Your task to perform on an android device: uninstall "Booking.com: Hotels and more" Image 0: 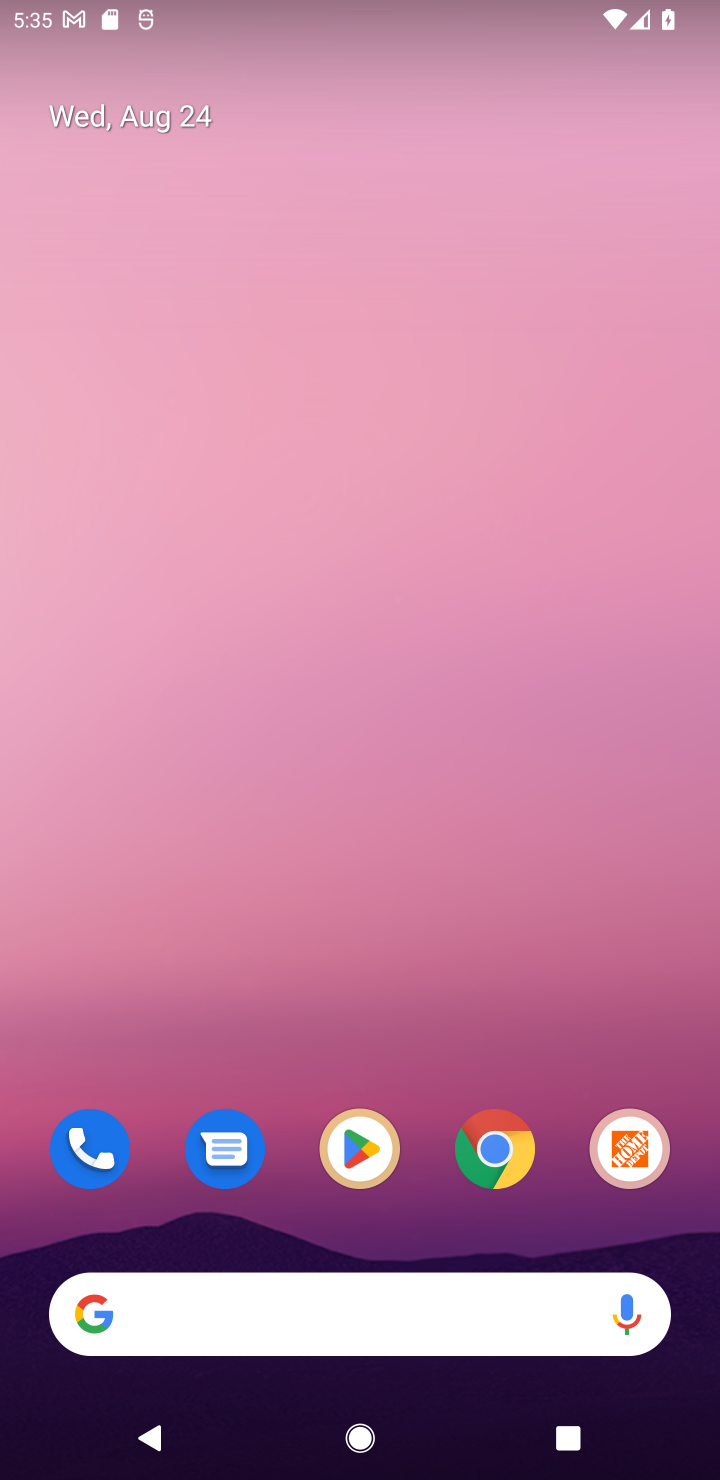
Step 0: click (370, 1145)
Your task to perform on an android device: uninstall "Booking.com: Hotels and more" Image 1: 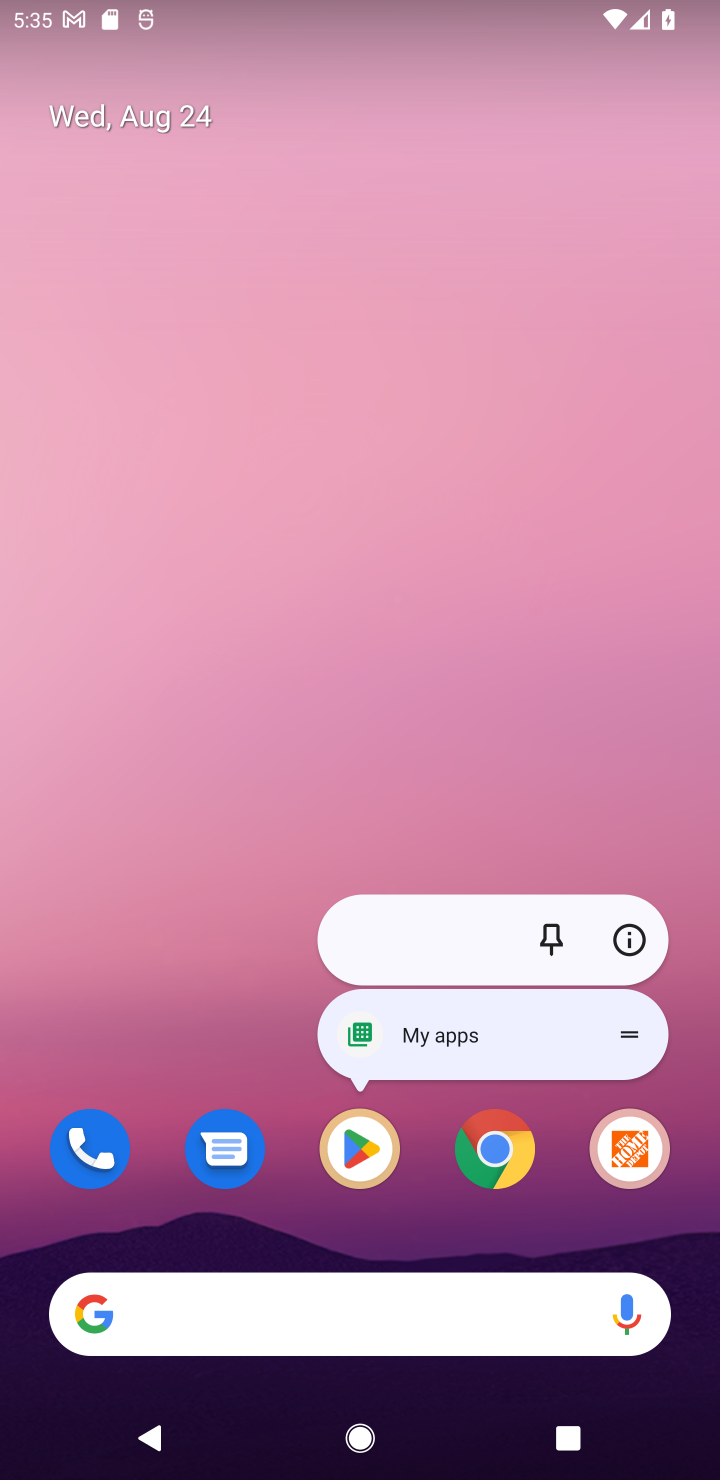
Step 1: click (353, 1147)
Your task to perform on an android device: uninstall "Booking.com: Hotels and more" Image 2: 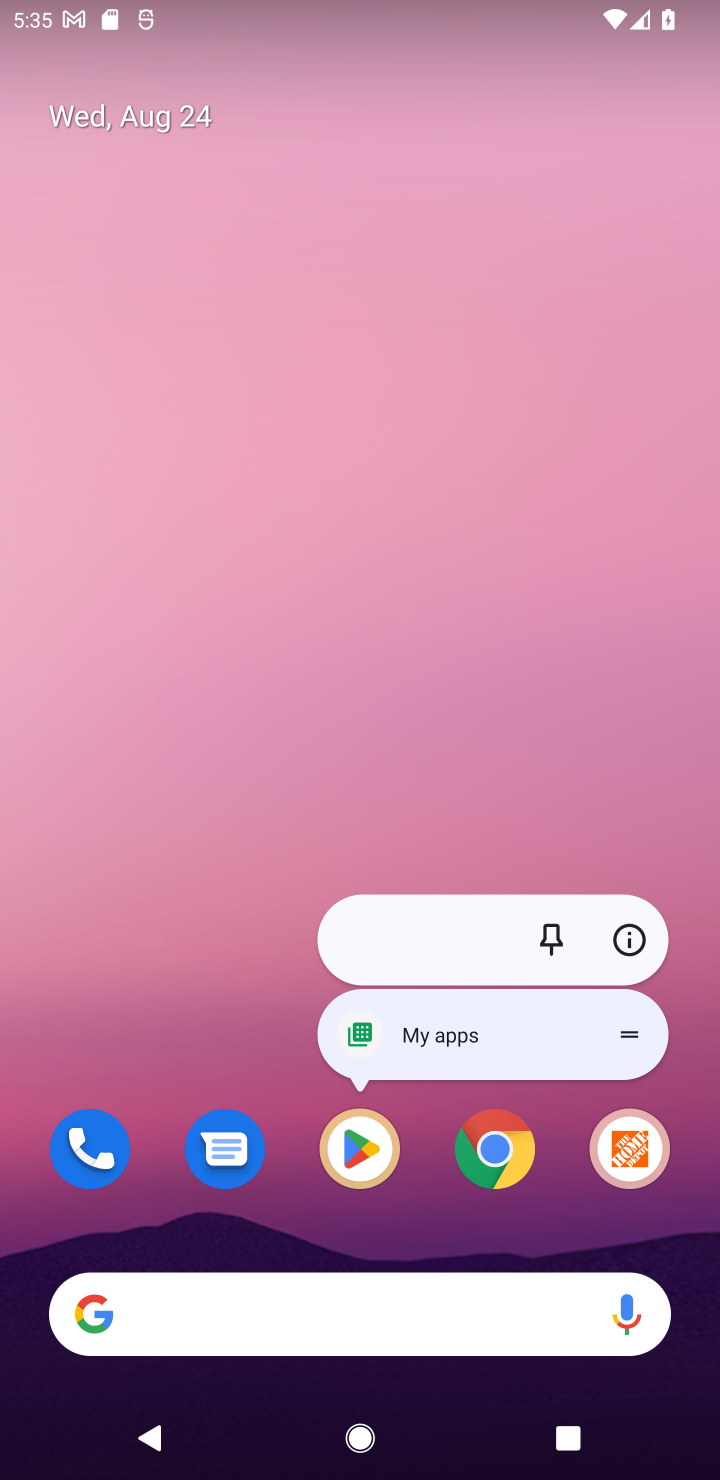
Step 2: click (353, 1149)
Your task to perform on an android device: uninstall "Booking.com: Hotels and more" Image 3: 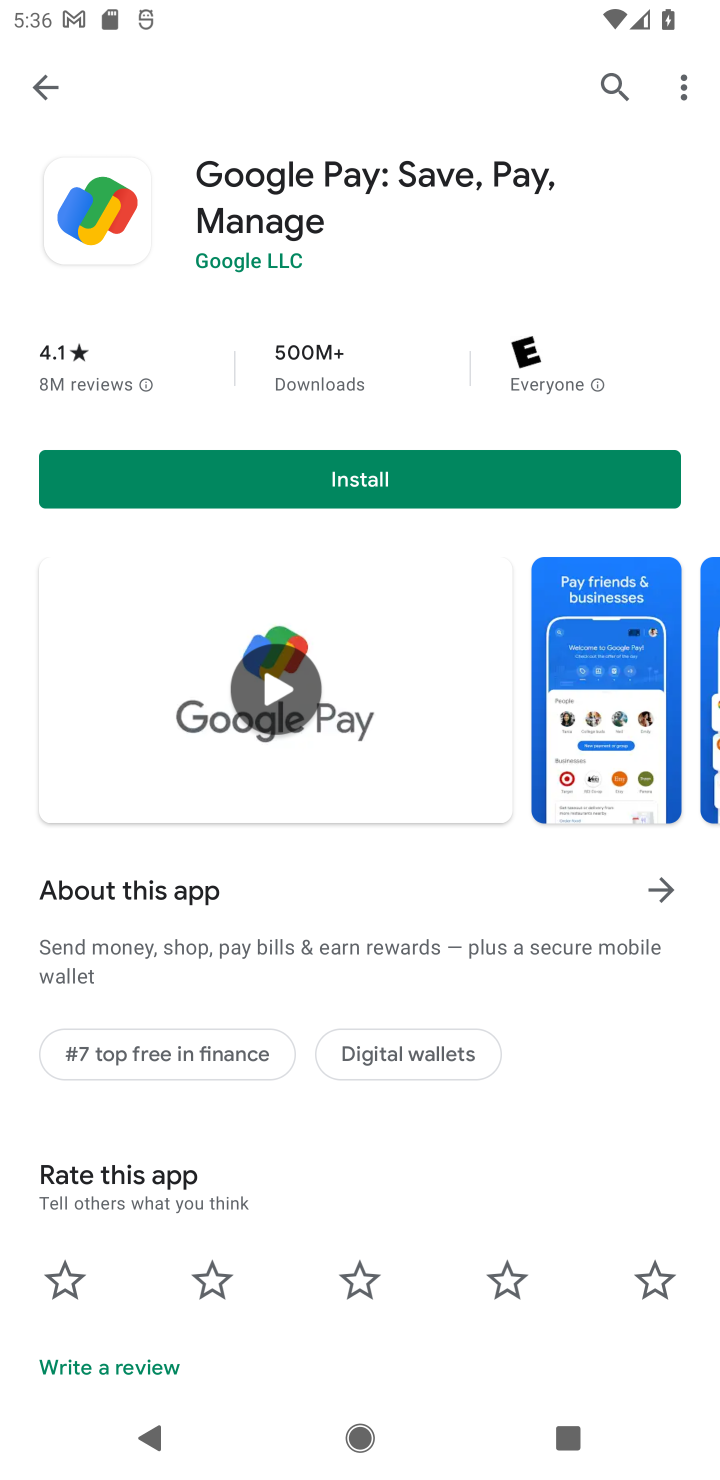
Step 3: click (605, 82)
Your task to perform on an android device: uninstall "Booking.com: Hotels and more" Image 4: 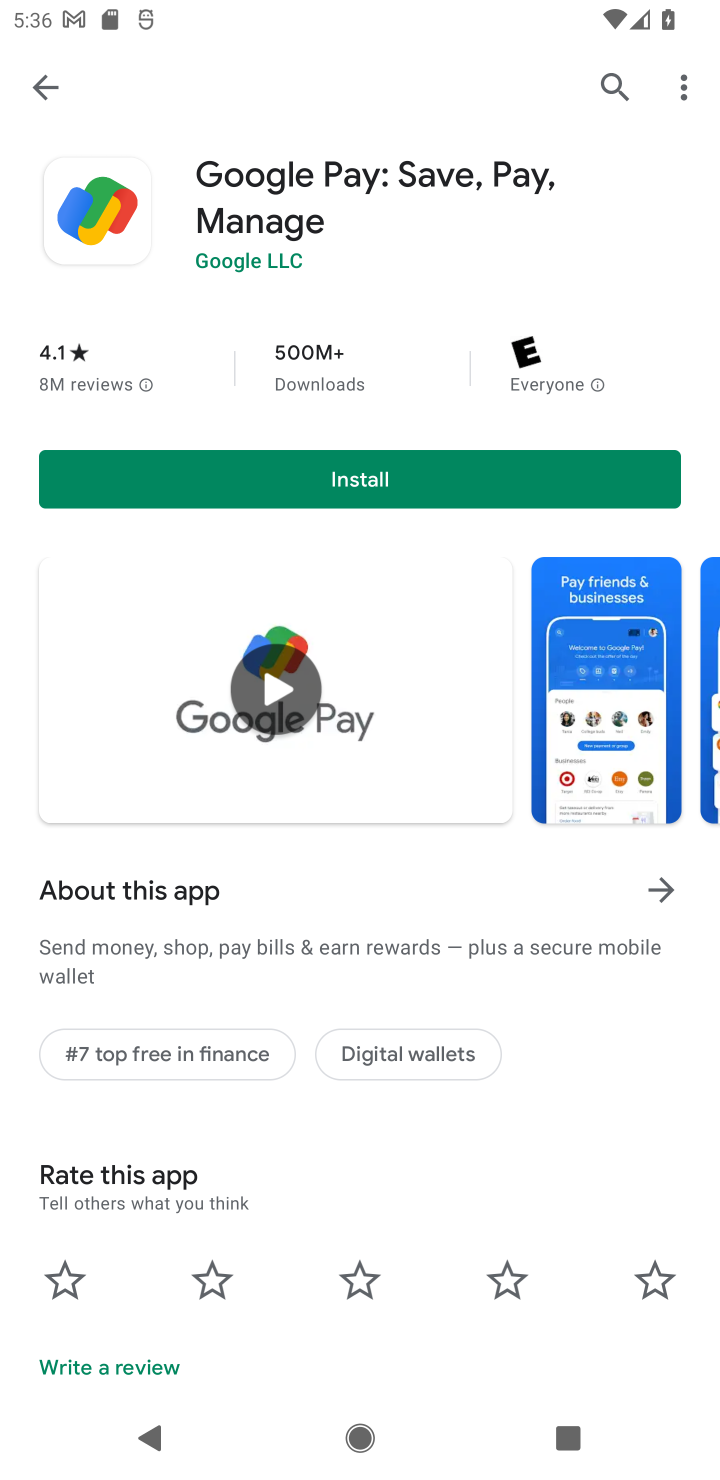
Step 4: click (592, 84)
Your task to perform on an android device: uninstall "Booking.com: Hotels and more" Image 5: 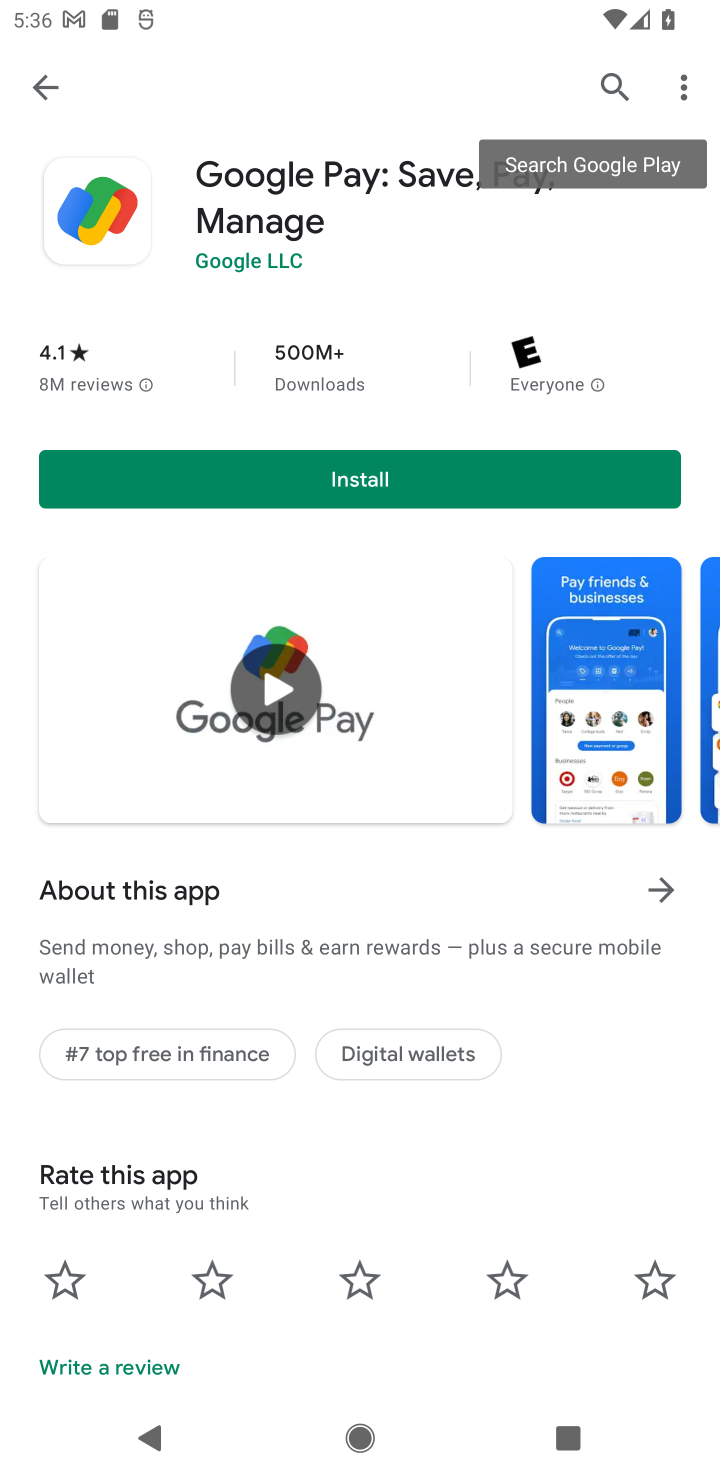
Step 5: click (601, 81)
Your task to perform on an android device: uninstall "Booking.com: Hotels and more" Image 6: 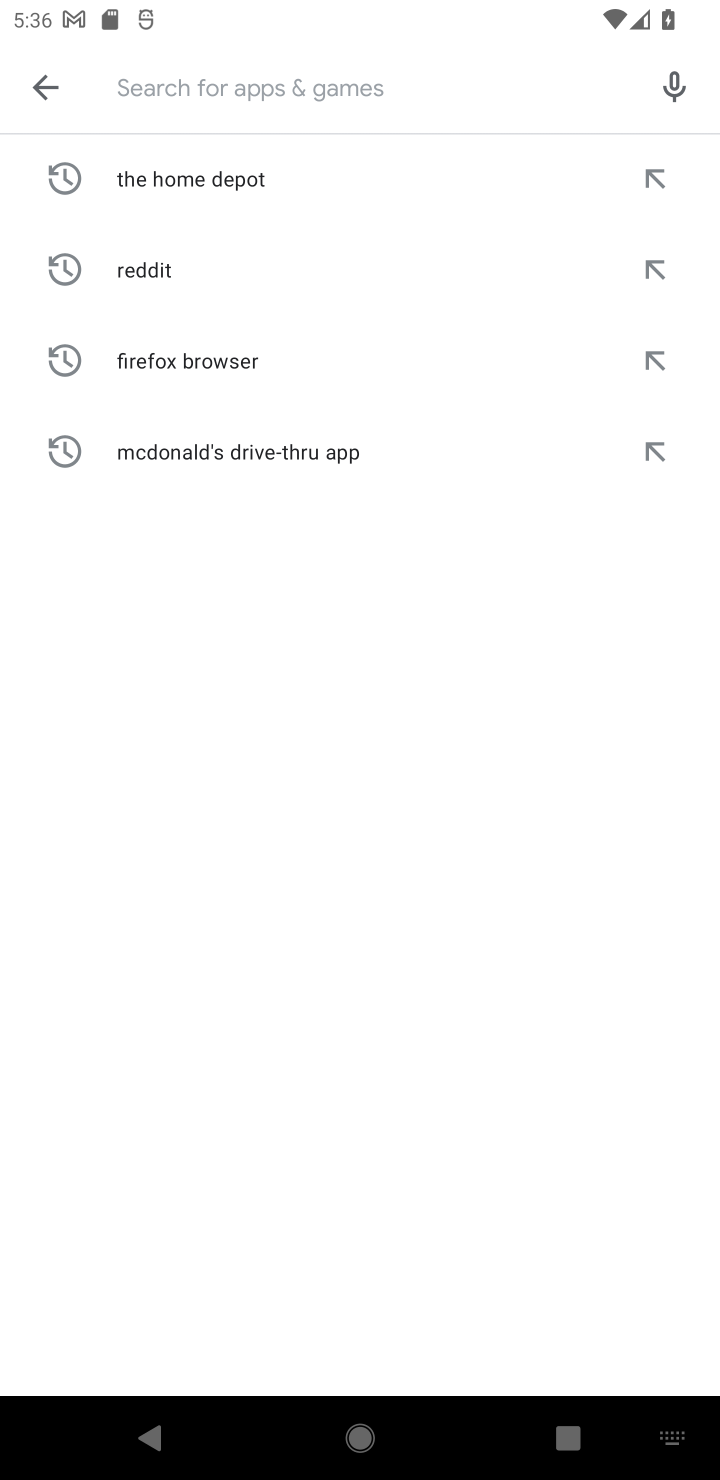
Step 6: type "Booking.com: Hotels and more"
Your task to perform on an android device: uninstall "Booking.com: Hotels and more" Image 7: 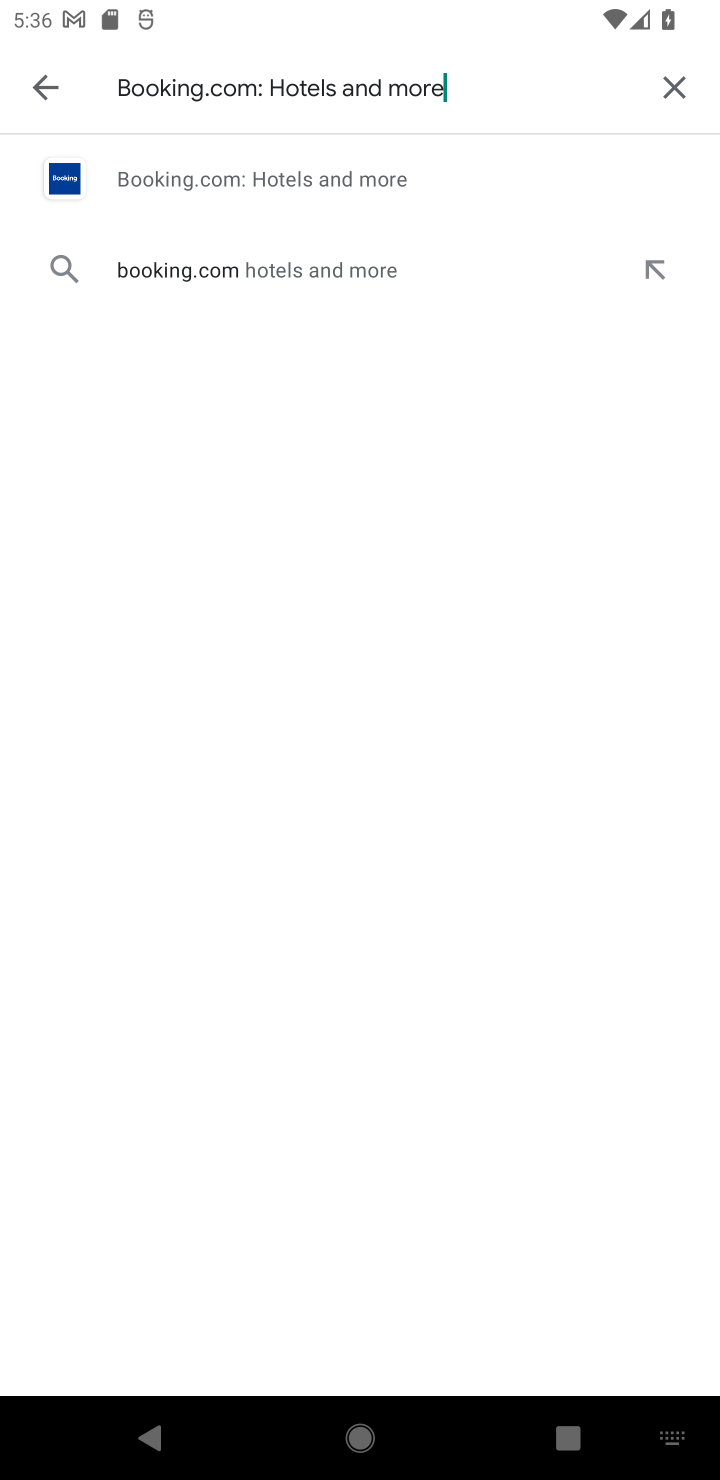
Step 7: click (334, 172)
Your task to perform on an android device: uninstall "Booking.com: Hotels and more" Image 8: 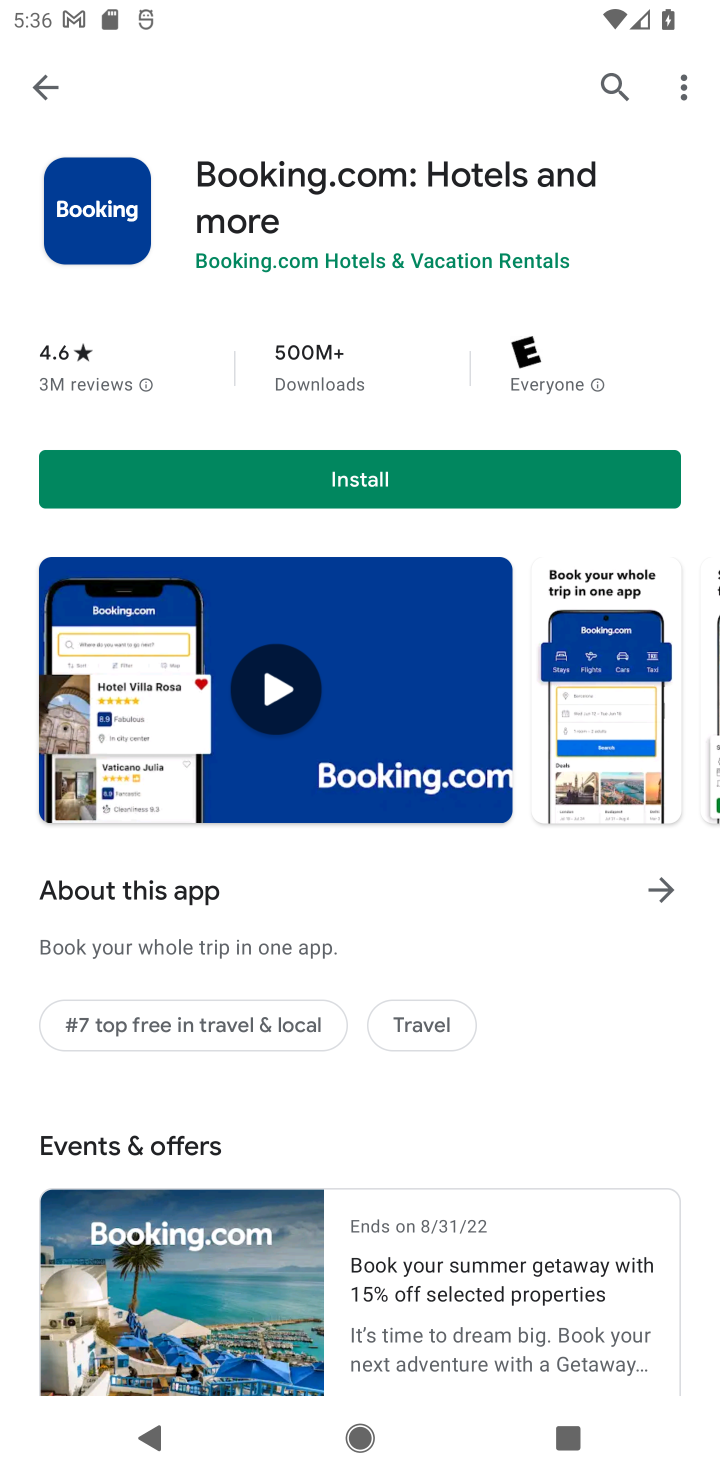
Step 8: task complete